Your task to perform on an android device: Open Google Maps Image 0: 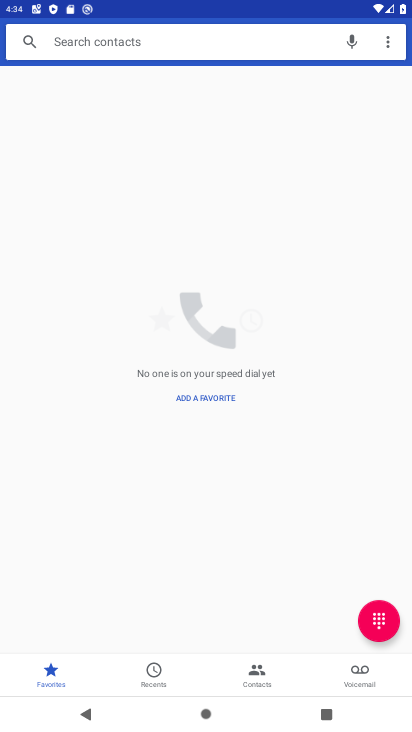
Step 0: press home button
Your task to perform on an android device: Open Google Maps Image 1: 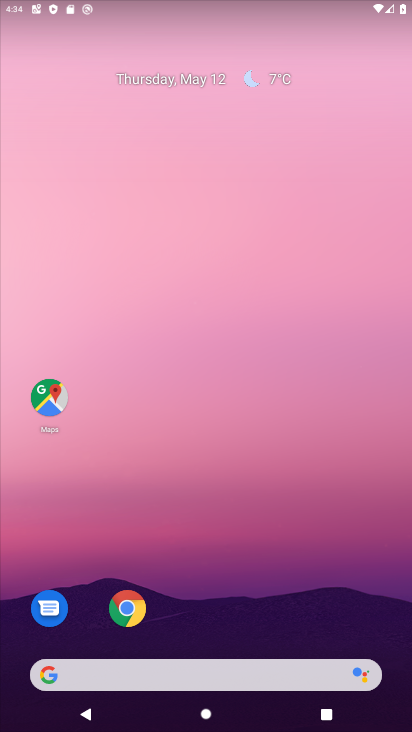
Step 1: click (49, 403)
Your task to perform on an android device: Open Google Maps Image 2: 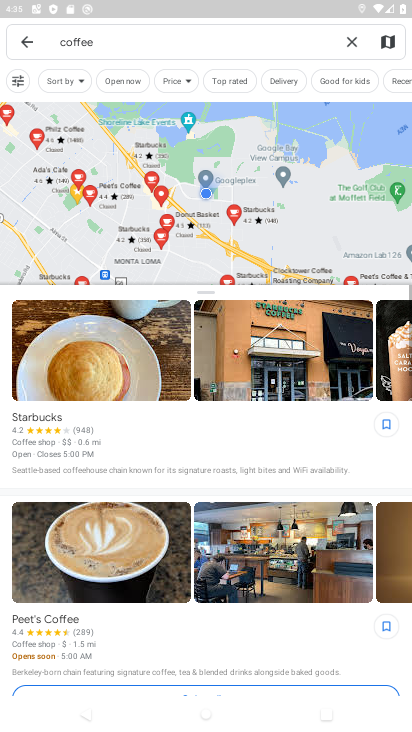
Step 2: task complete